Your task to perform on an android device: See recent photos Image 0: 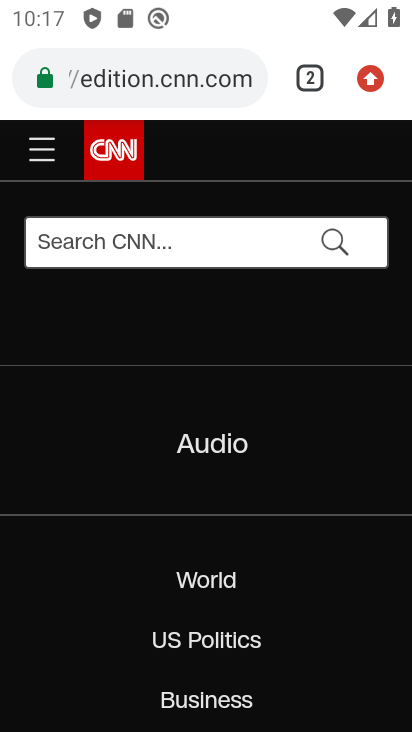
Step 0: press back button
Your task to perform on an android device: See recent photos Image 1: 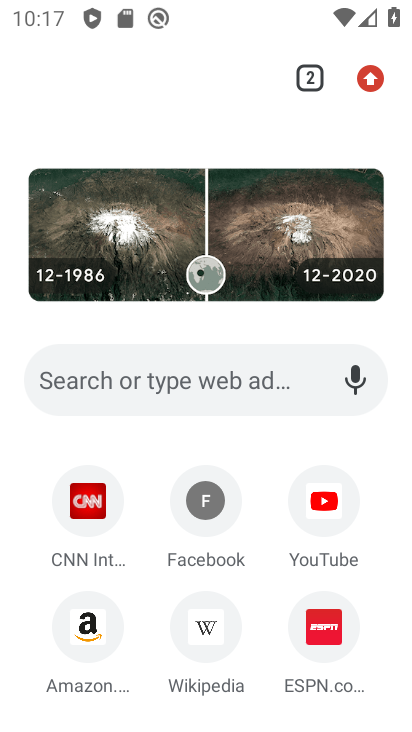
Step 1: press back button
Your task to perform on an android device: See recent photos Image 2: 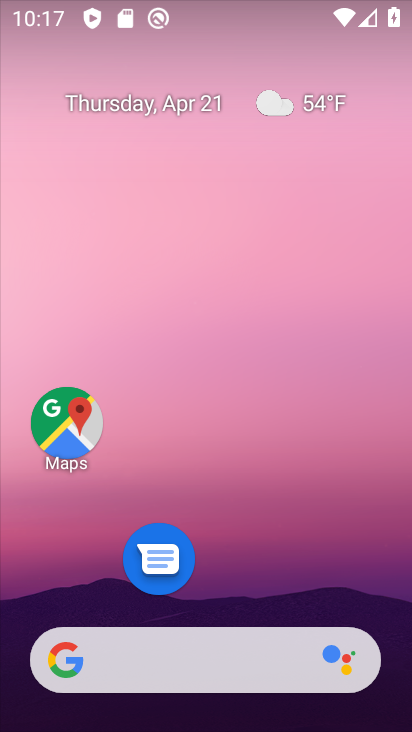
Step 2: drag from (230, 549) to (259, 120)
Your task to perform on an android device: See recent photos Image 3: 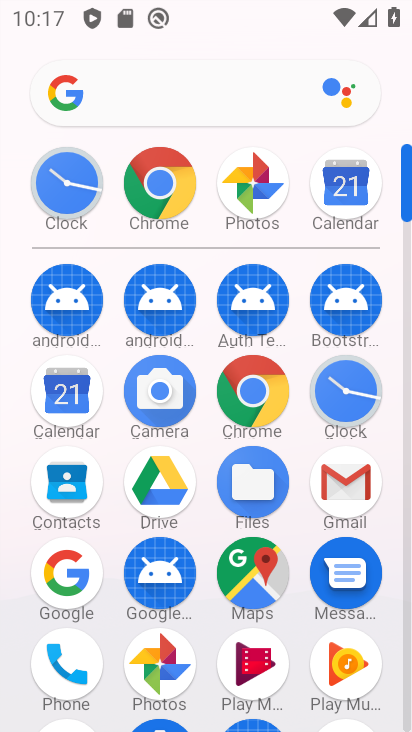
Step 3: click (164, 657)
Your task to perform on an android device: See recent photos Image 4: 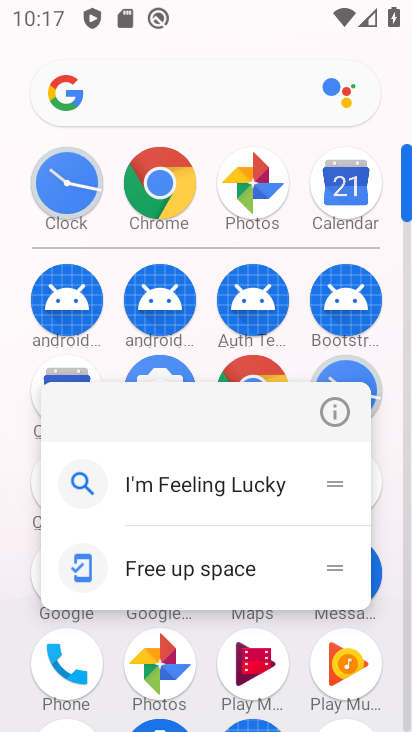
Step 4: click (162, 669)
Your task to perform on an android device: See recent photos Image 5: 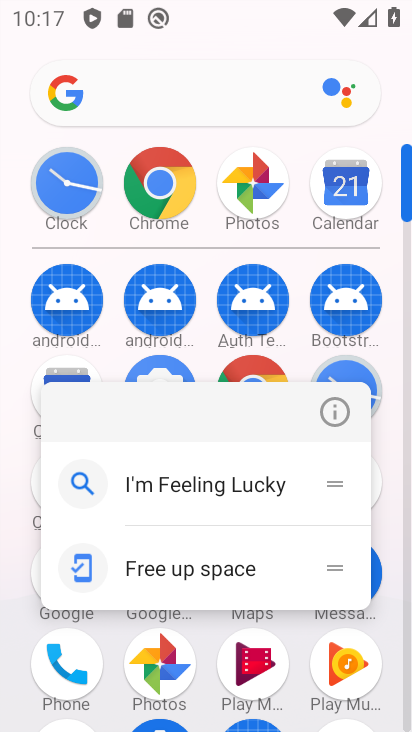
Step 5: click (164, 669)
Your task to perform on an android device: See recent photos Image 6: 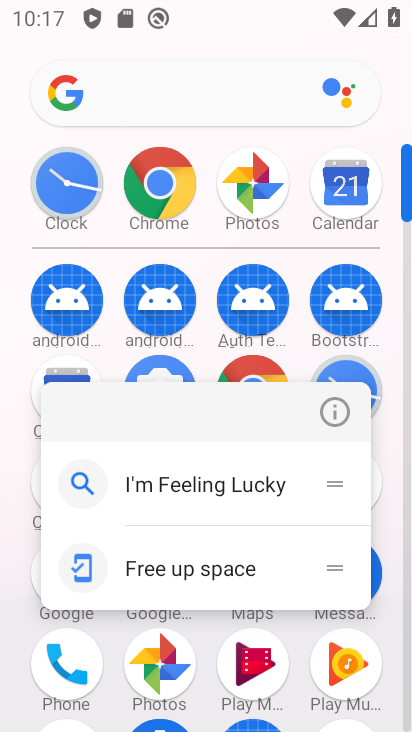
Step 6: click (171, 666)
Your task to perform on an android device: See recent photos Image 7: 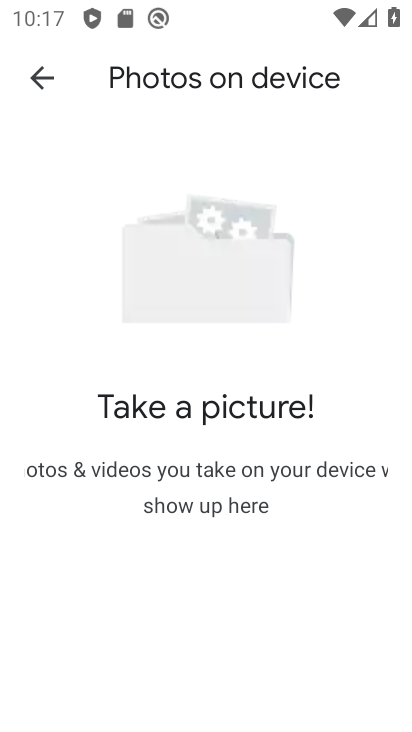
Step 7: task complete